Your task to perform on an android device: Install the Calendar app Image 0: 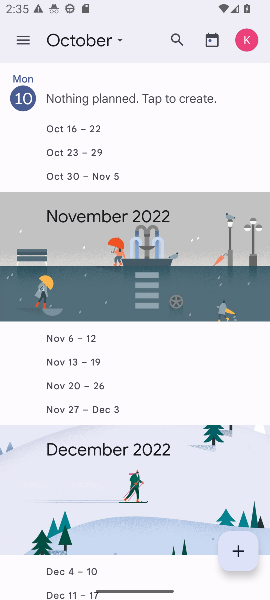
Step 0: press home button
Your task to perform on an android device: Install the Calendar app Image 1: 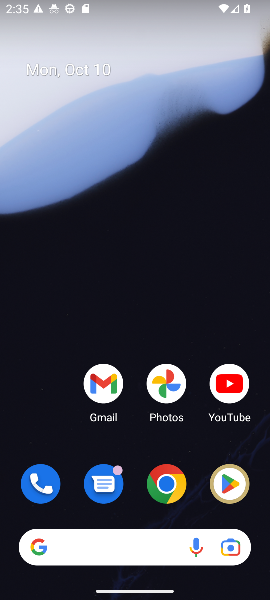
Step 1: drag from (140, 450) to (160, 15)
Your task to perform on an android device: Install the Calendar app Image 2: 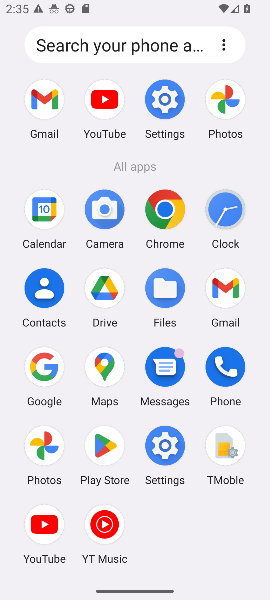
Step 2: click (52, 208)
Your task to perform on an android device: Install the Calendar app Image 3: 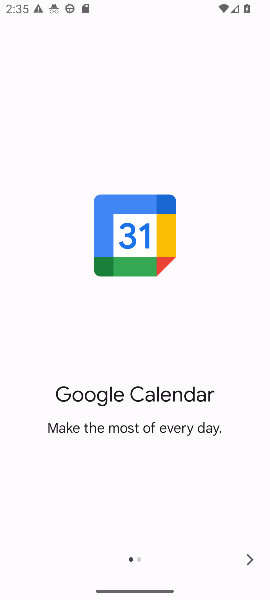
Step 3: click (251, 558)
Your task to perform on an android device: Install the Calendar app Image 4: 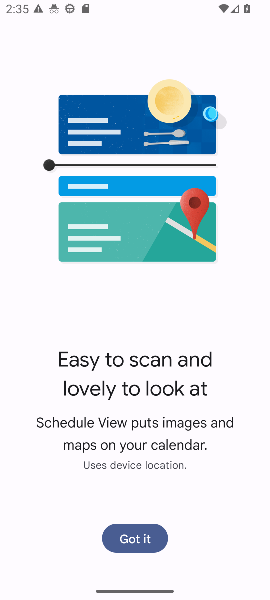
Step 4: click (119, 536)
Your task to perform on an android device: Install the Calendar app Image 5: 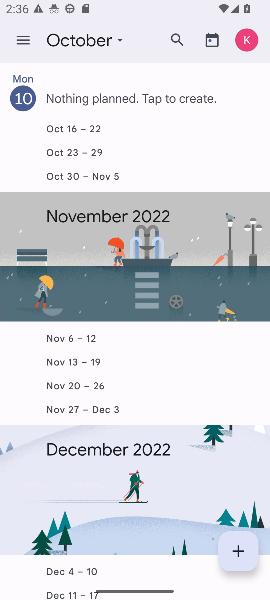
Step 5: press home button
Your task to perform on an android device: Install the Calendar app Image 6: 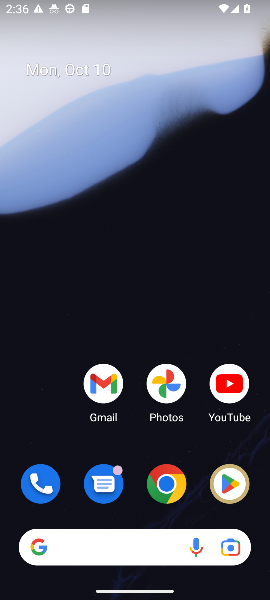
Step 6: click (172, 480)
Your task to perform on an android device: Install the Calendar app Image 7: 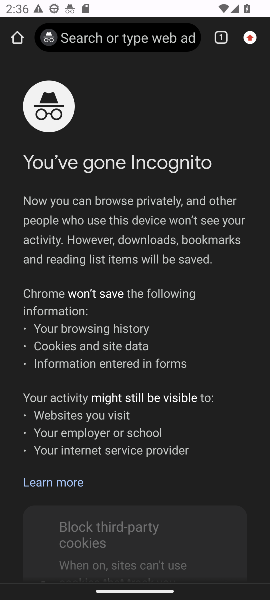
Step 7: press home button
Your task to perform on an android device: Install the Calendar app Image 8: 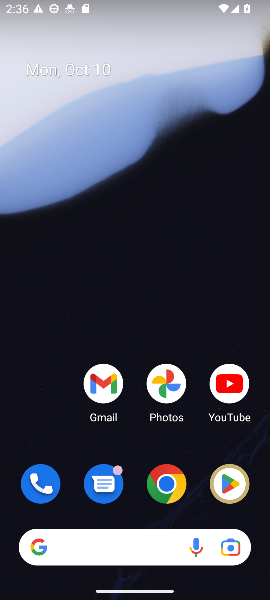
Step 8: drag from (151, 446) to (135, 0)
Your task to perform on an android device: Install the Calendar app Image 9: 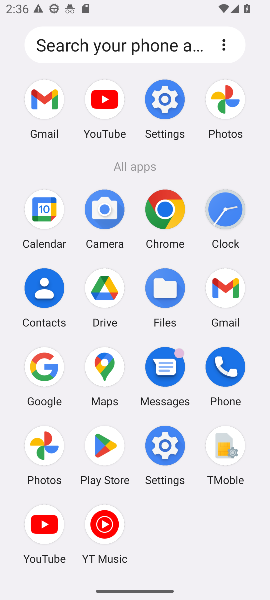
Step 9: click (43, 207)
Your task to perform on an android device: Install the Calendar app Image 10: 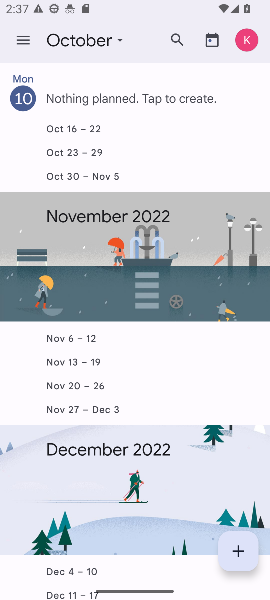
Step 10: task complete